Your task to perform on an android device: Open network settings Image 0: 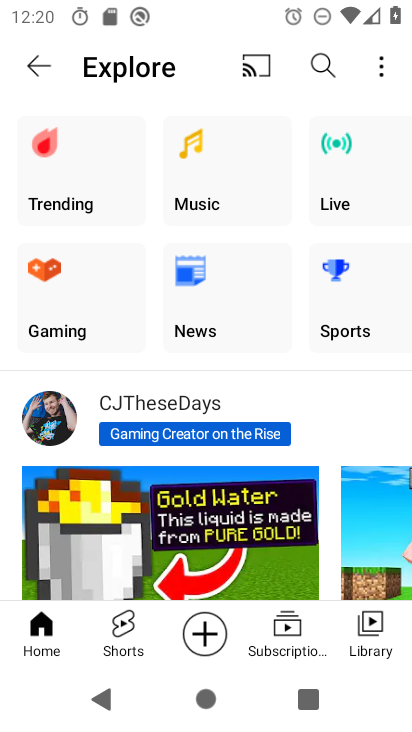
Step 0: press home button
Your task to perform on an android device: Open network settings Image 1: 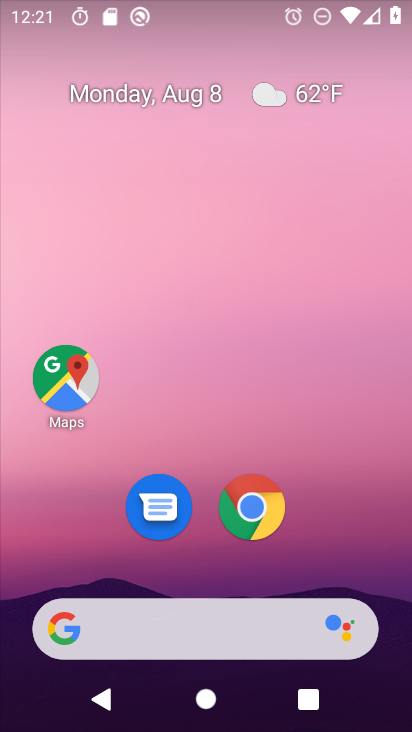
Step 1: drag from (352, 501) to (254, 0)
Your task to perform on an android device: Open network settings Image 2: 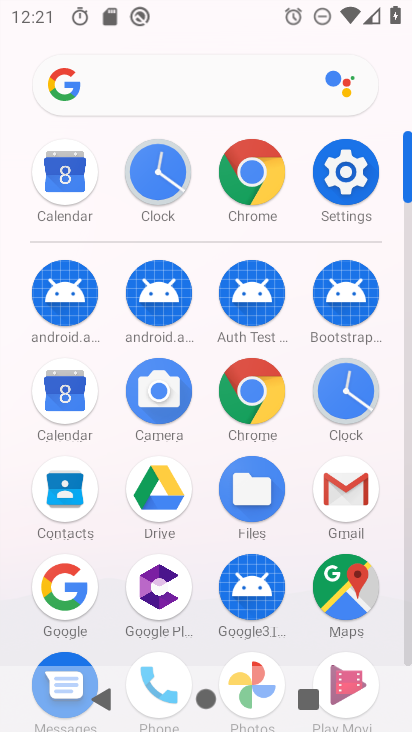
Step 2: click (344, 171)
Your task to perform on an android device: Open network settings Image 3: 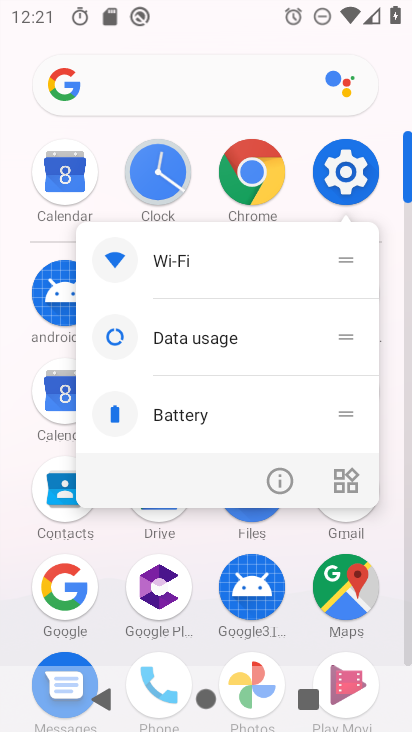
Step 3: click (324, 174)
Your task to perform on an android device: Open network settings Image 4: 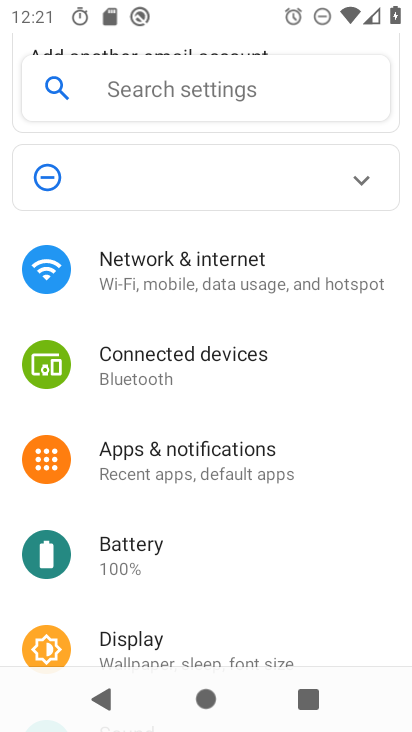
Step 4: click (184, 280)
Your task to perform on an android device: Open network settings Image 5: 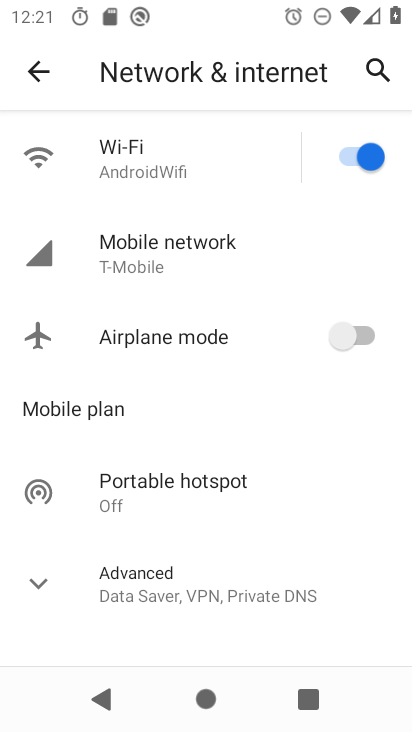
Step 5: task complete